Your task to perform on an android device: Install the Pandora app Image 0: 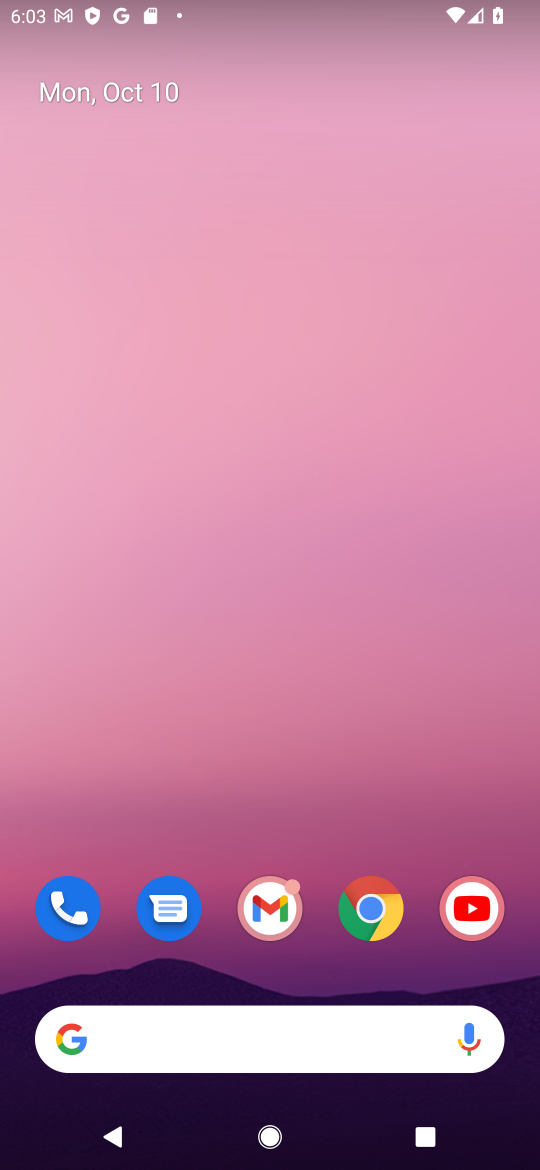
Step 0: drag from (317, 957) to (535, 48)
Your task to perform on an android device: Install the Pandora app Image 1: 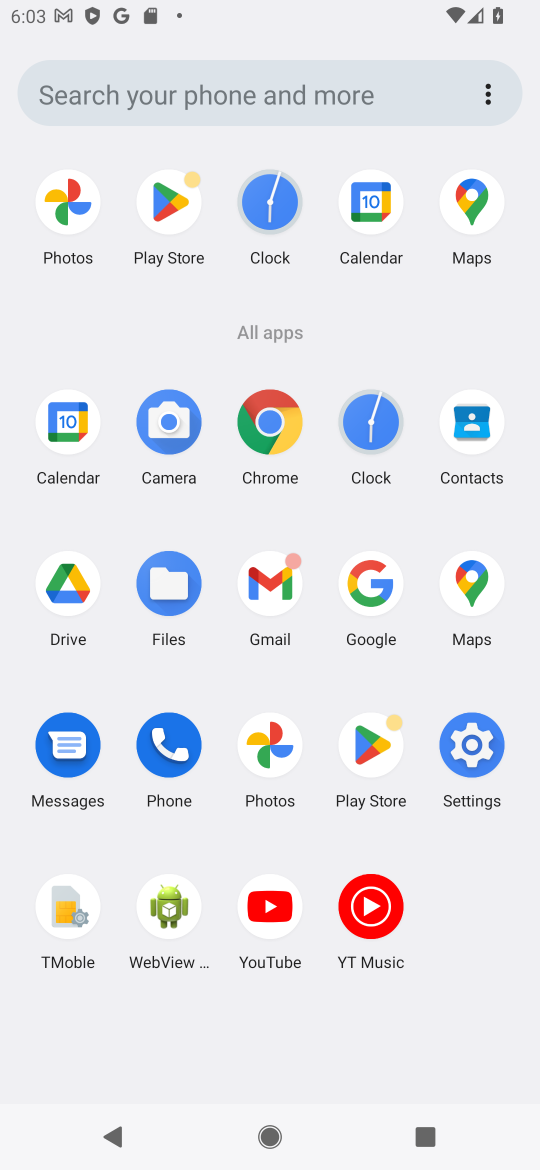
Step 1: click (378, 747)
Your task to perform on an android device: Install the Pandora app Image 2: 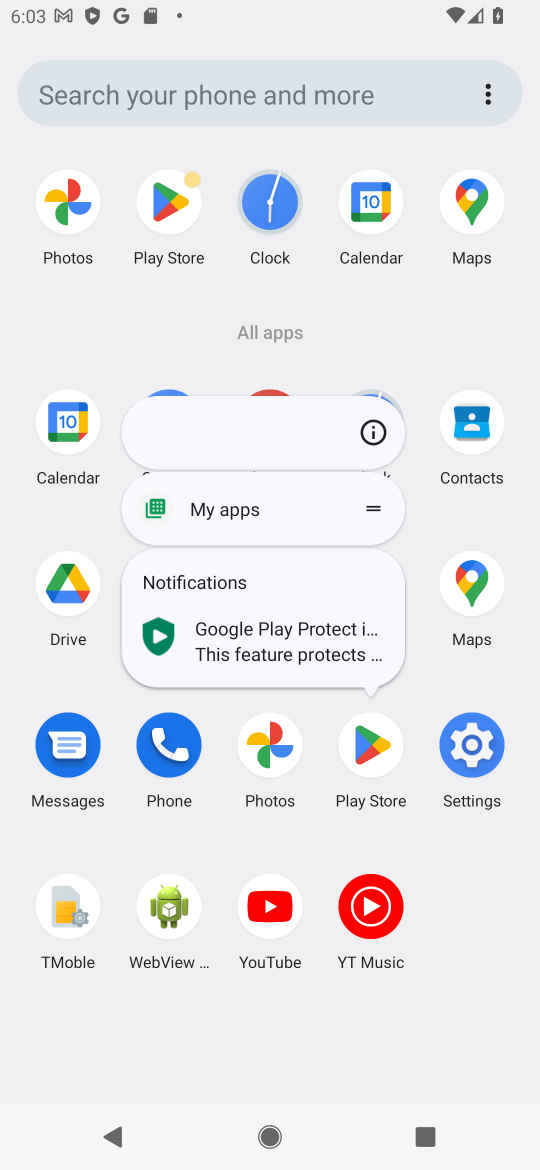
Step 2: click (366, 744)
Your task to perform on an android device: Install the Pandora app Image 3: 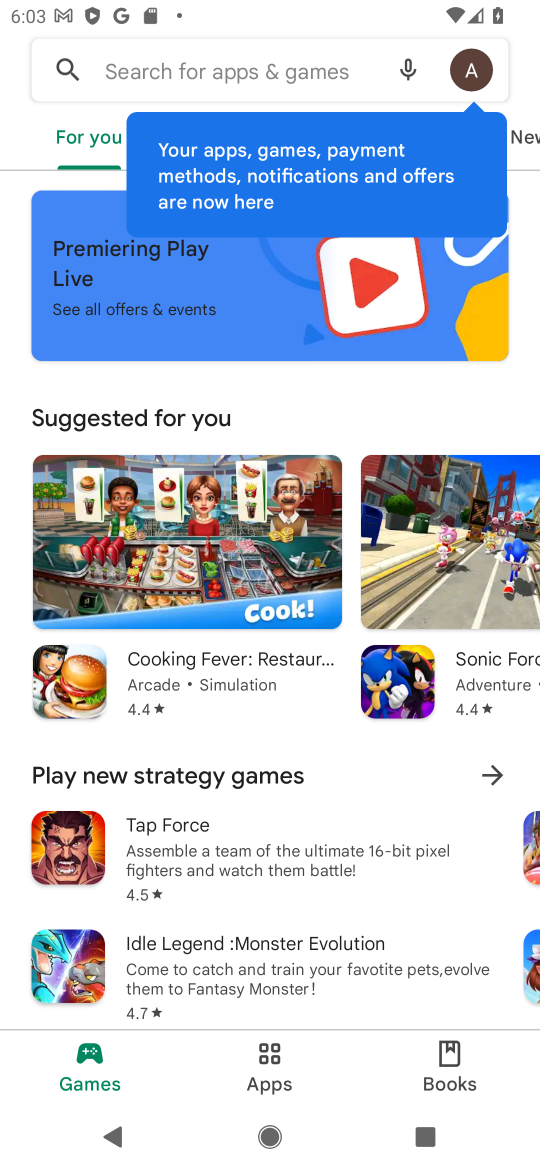
Step 3: click (269, 72)
Your task to perform on an android device: Install the Pandora app Image 4: 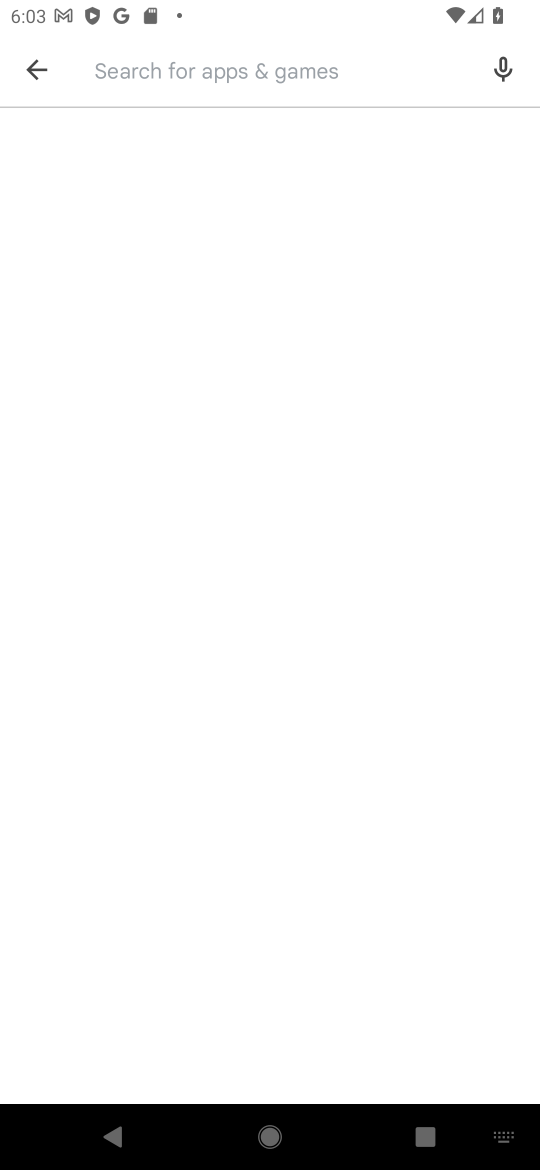
Step 4: type "Pendora app"
Your task to perform on an android device: Install the Pandora app Image 5: 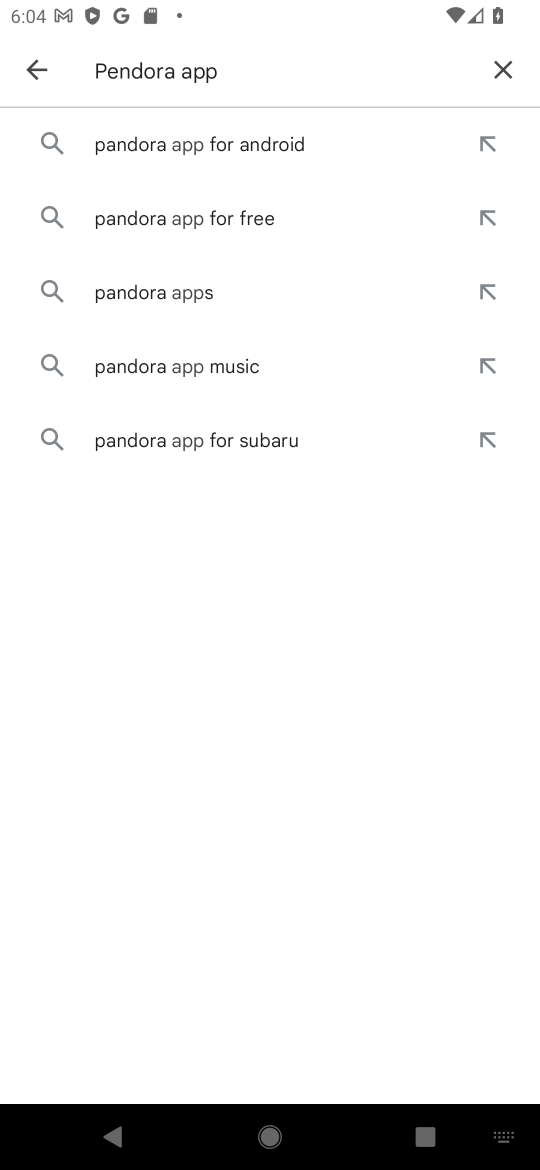
Step 5: press enter
Your task to perform on an android device: Install the Pandora app Image 6: 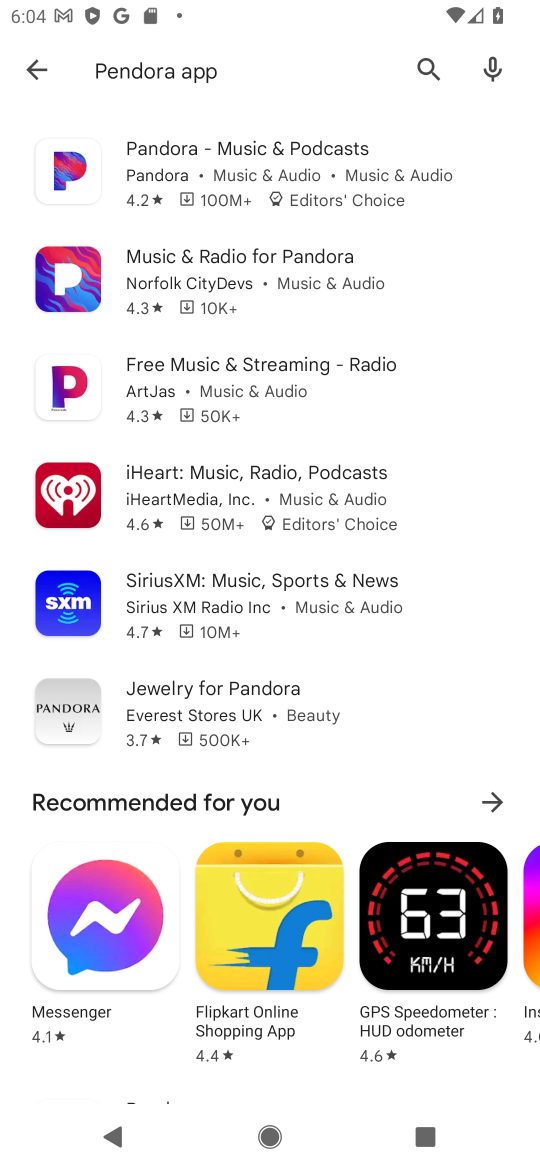
Step 6: click (314, 162)
Your task to perform on an android device: Install the Pandora app Image 7: 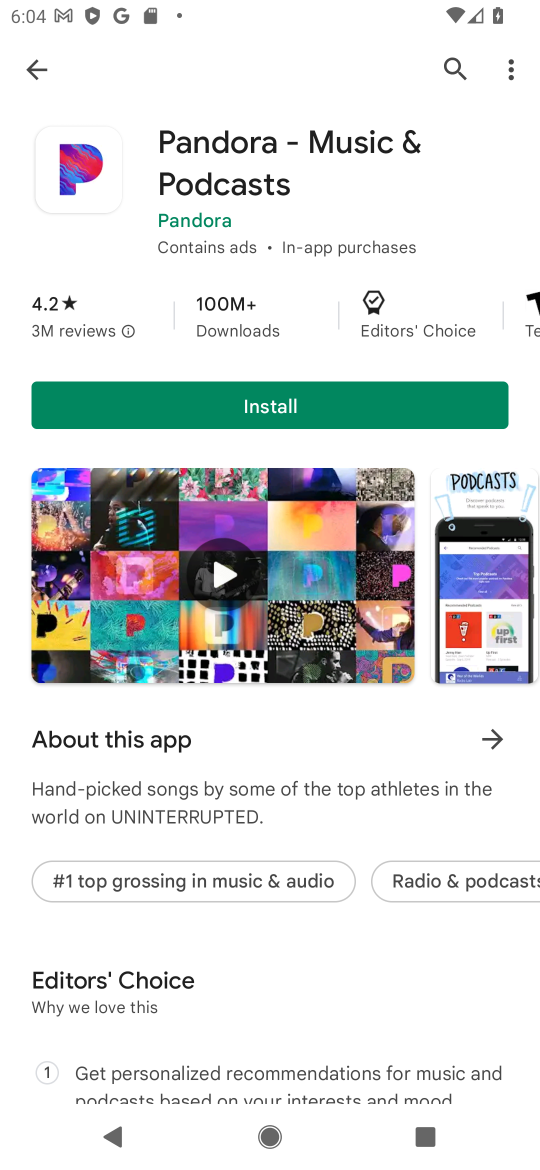
Step 7: click (333, 406)
Your task to perform on an android device: Install the Pandora app Image 8: 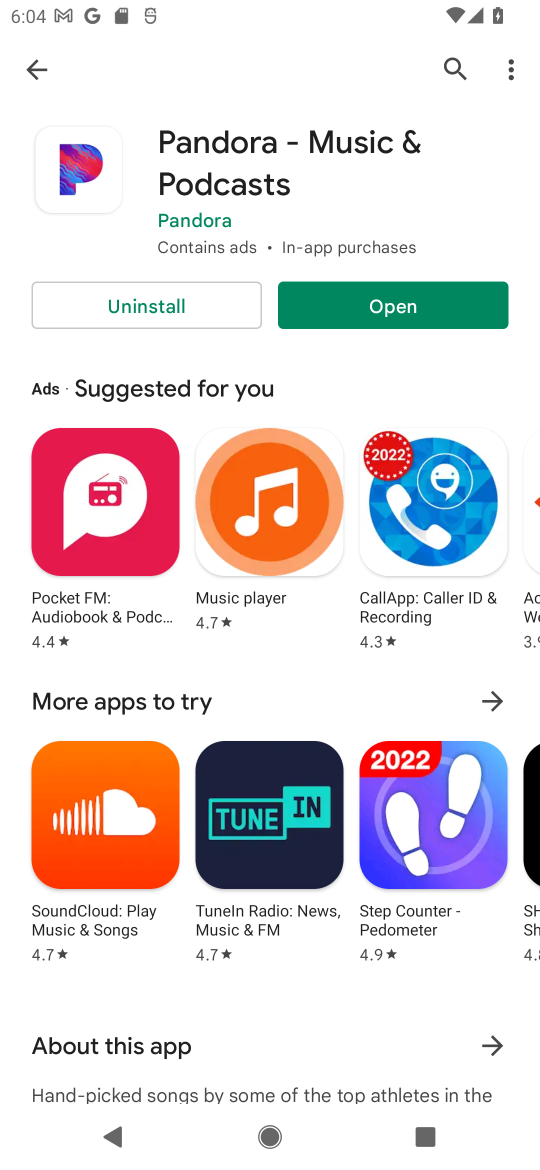
Step 8: task complete